Your task to perform on an android device: open app "Booking.com: Hotels and more" (install if not already installed) Image 0: 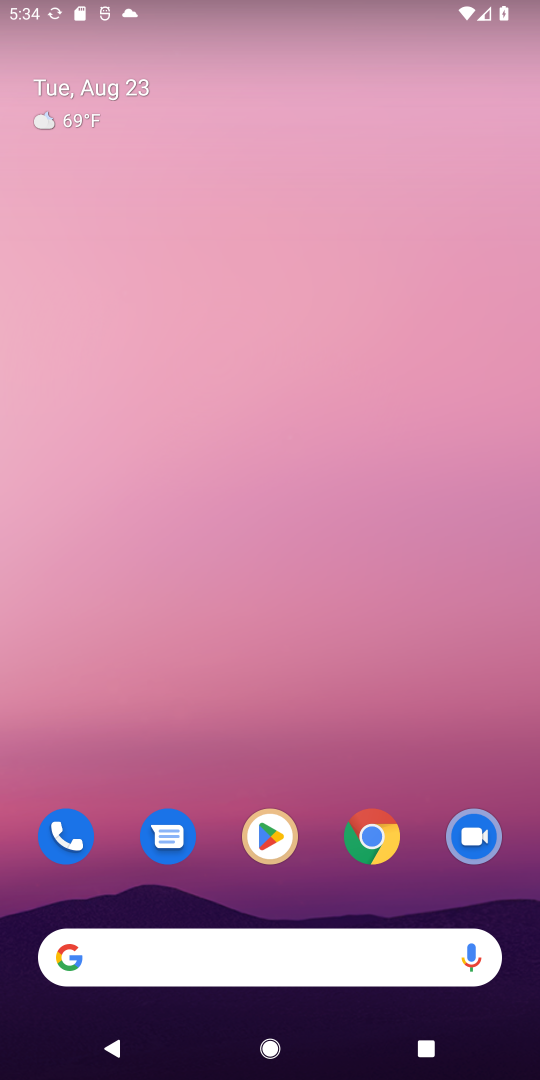
Step 0: click (265, 827)
Your task to perform on an android device: open app "Booking.com: Hotels and more" (install if not already installed) Image 1: 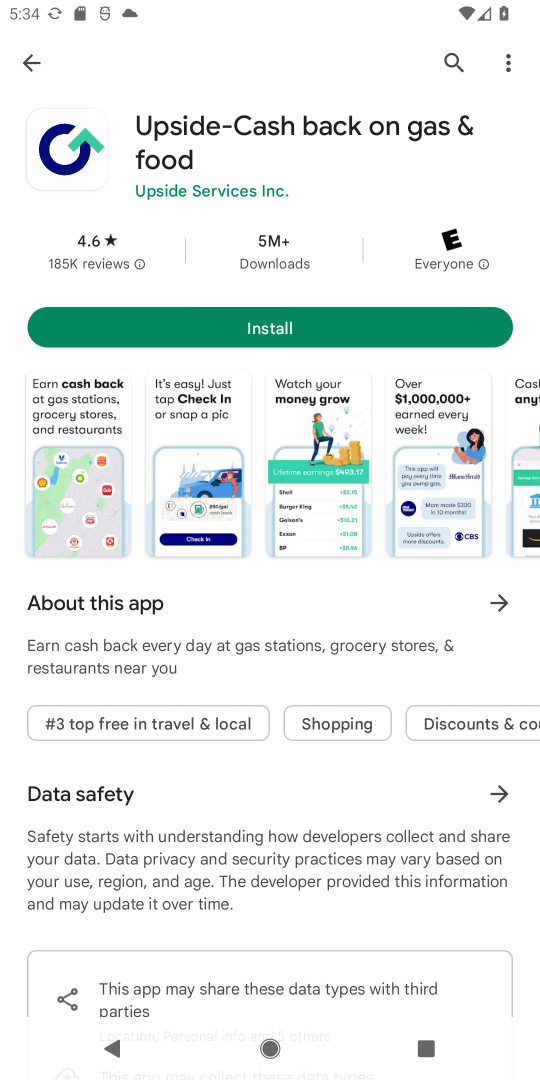
Step 1: click (450, 54)
Your task to perform on an android device: open app "Booking.com: Hotels and more" (install if not already installed) Image 2: 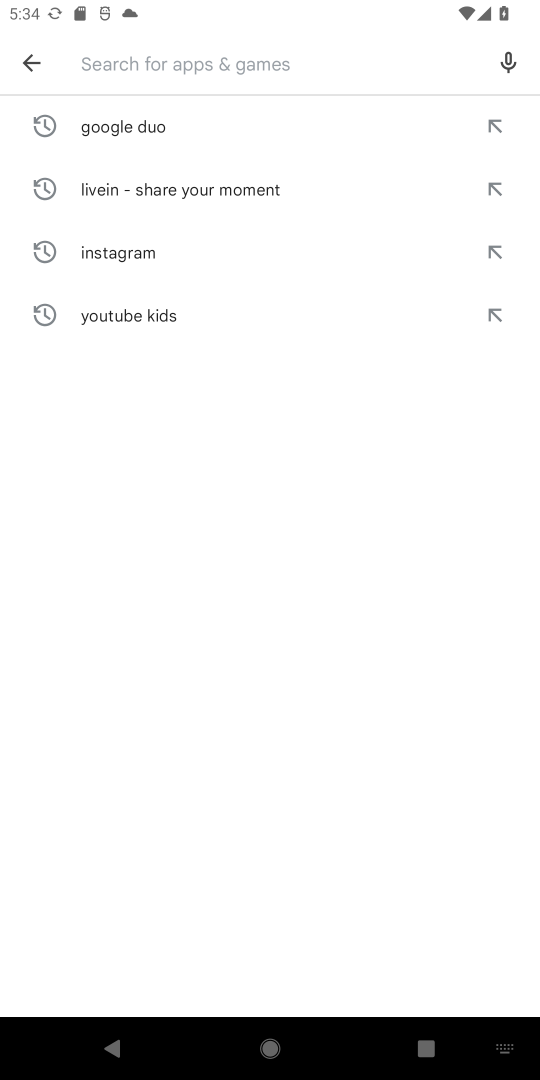
Step 2: type "Booking.com: Hotels and more"
Your task to perform on an android device: open app "Booking.com: Hotels and more" (install if not already installed) Image 3: 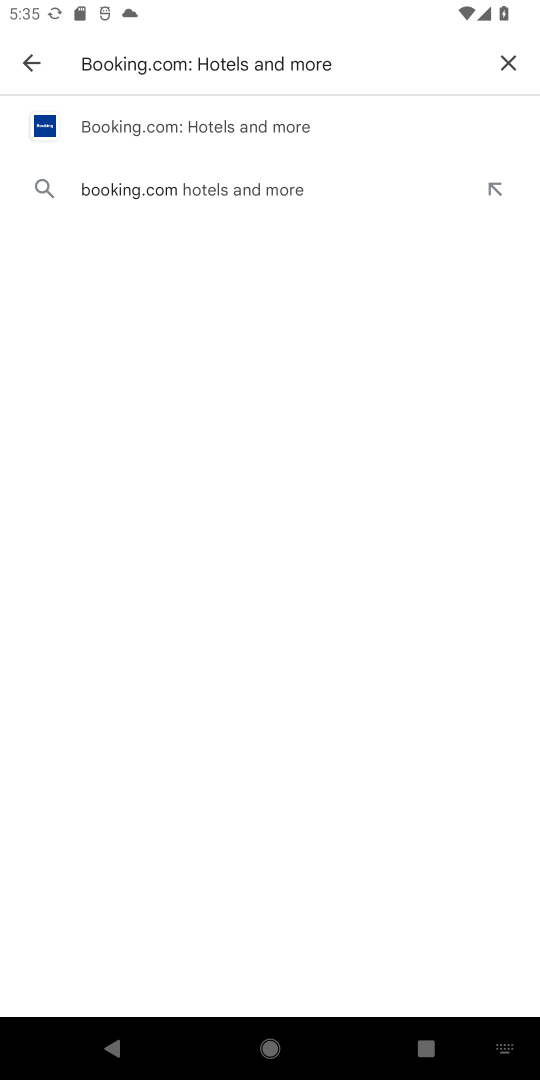
Step 3: click (134, 117)
Your task to perform on an android device: open app "Booking.com: Hotels and more" (install if not already installed) Image 4: 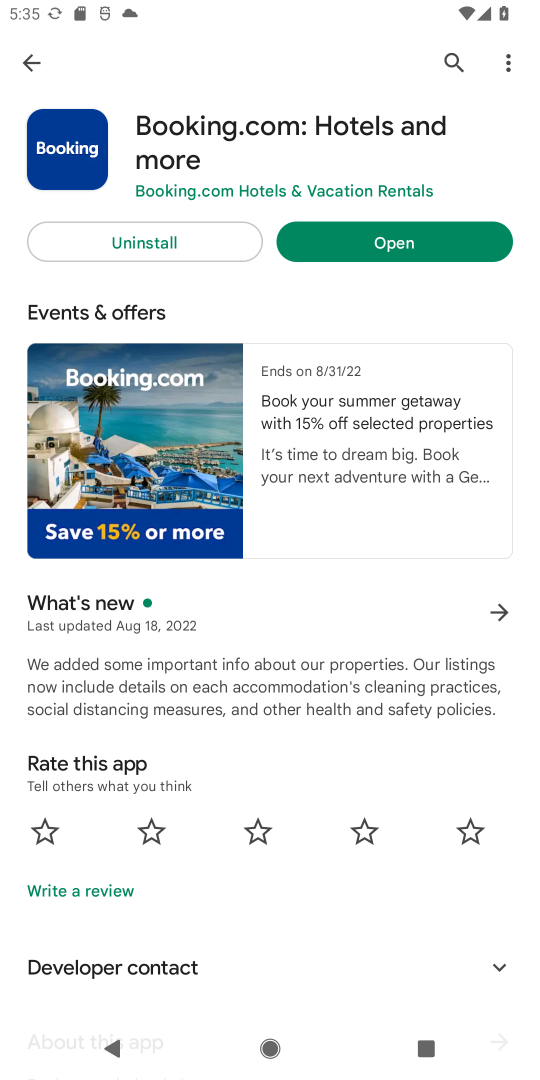
Step 4: click (393, 245)
Your task to perform on an android device: open app "Booking.com: Hotels and more" (install if not already installed) Image 5: 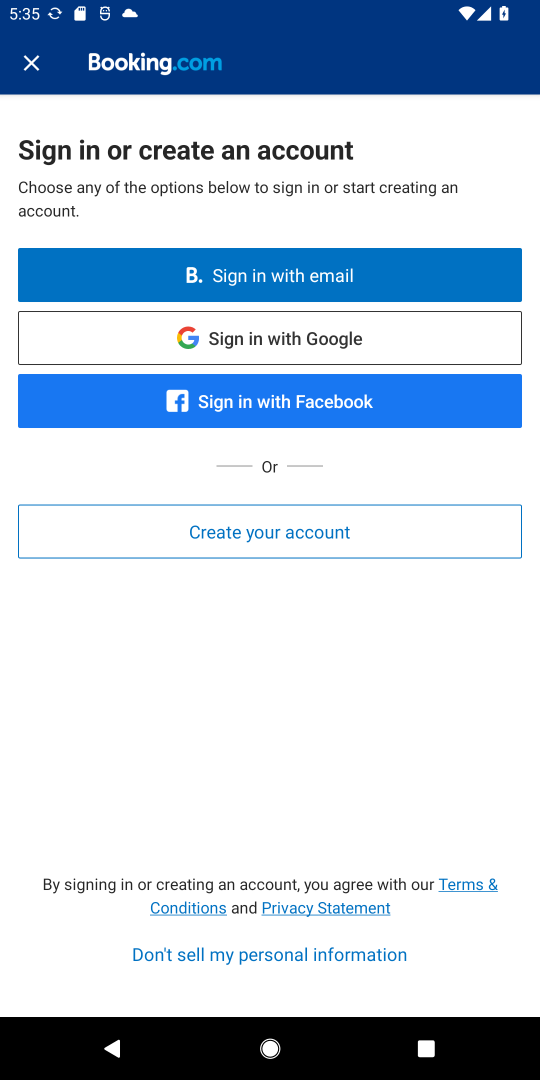
Step 5: task complete